Your task to perform on an android device: Go to eBay Image 0: 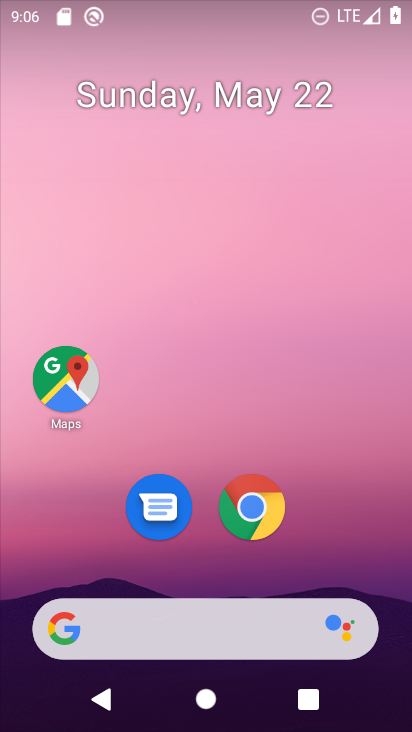
Step 0: click (219, 651)
Your task to perform on an android device: Go to eBay Image 1: 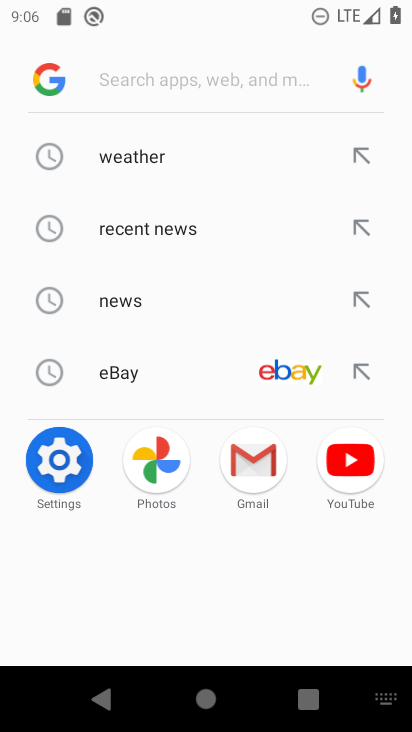
Step 1: click (305, 368)
Your task to perform on an android device: Go to eBay Image 2: 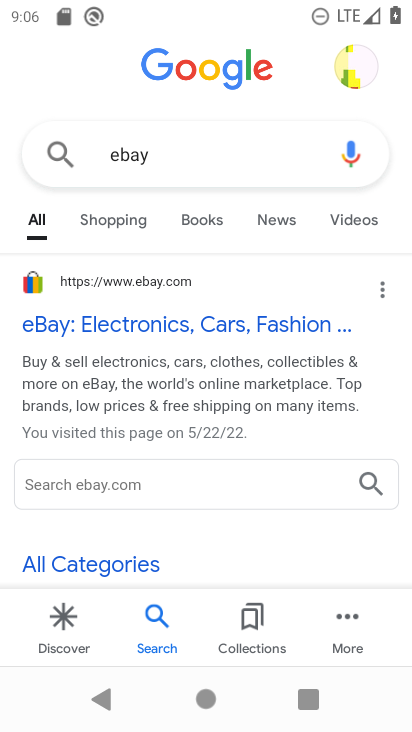
Step 2: click (166, 276)
Your task to perform on an android device: Go to eBay Image 3: 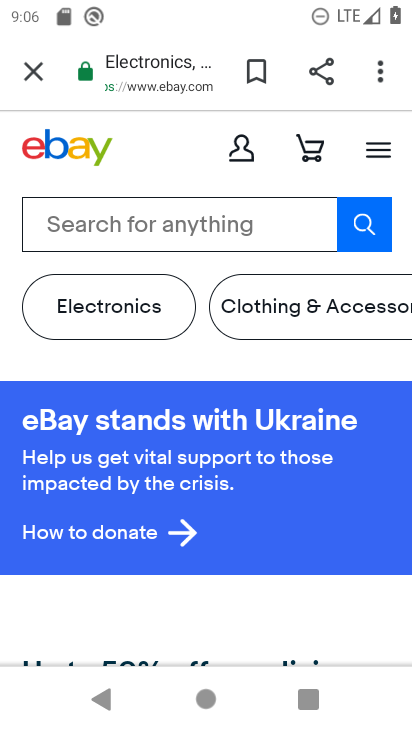
Step 3: task complete